Your task to perform on an android device: change the clock display to analog Image 0: 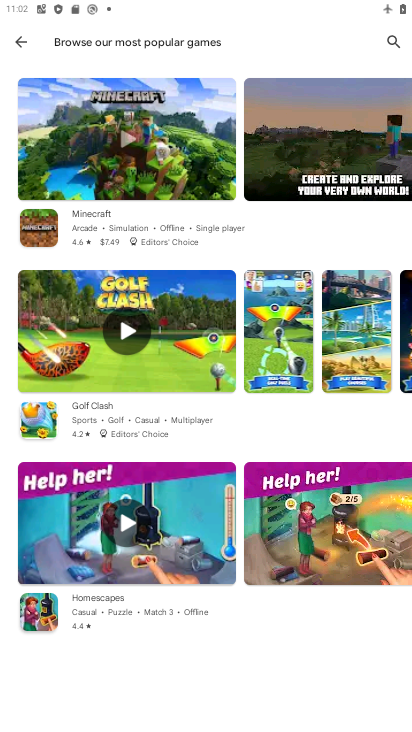
Step 0: press home button
Your task to perform on an android device: change the clock display to analog Image 1: 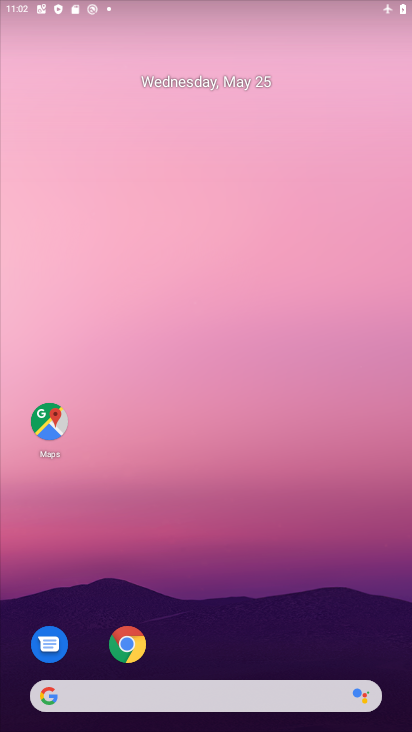
Step 1: drag from (227, 593) to (231, 104)
Your task to perform on an android device: change the clock display to analog Image 2: 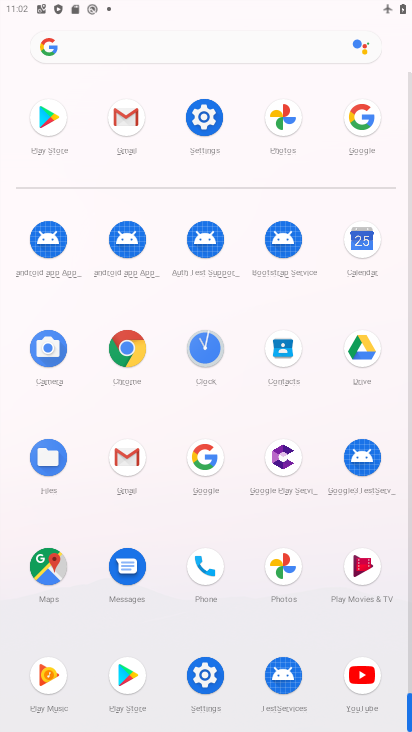
Step 2: click (201, 352)
Your task to perform on an android device: change the clock display to analog Image 3: 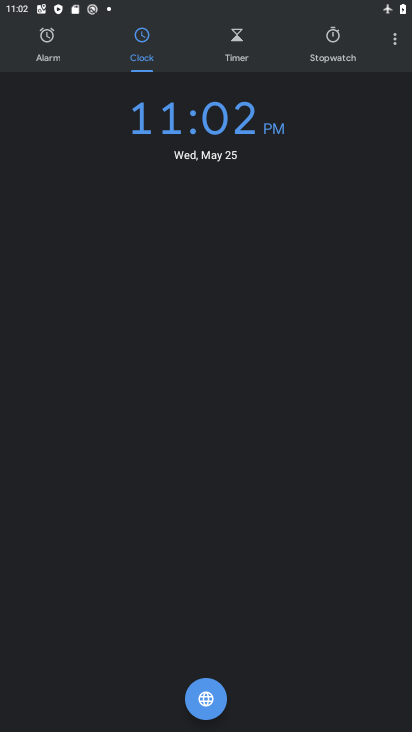
Step 3: click (389, 39)
Your task to perform on an android device: change the clock display to analog Image 4: 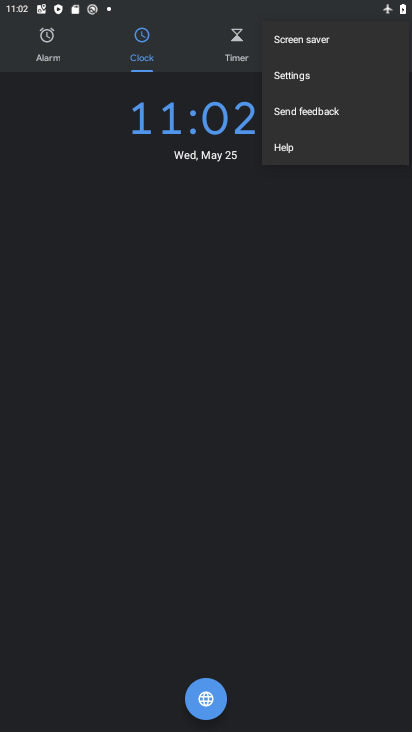
Step 4: click (298, 84)
Your task to perform on an android device: change the clock display to analog Image 5: 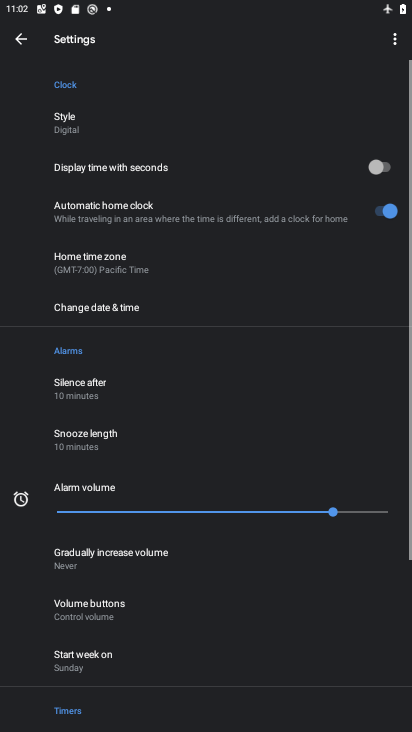
Step 5: click (112, 119)
Your task to perform on an android device: change the clock display to analog Image 6: 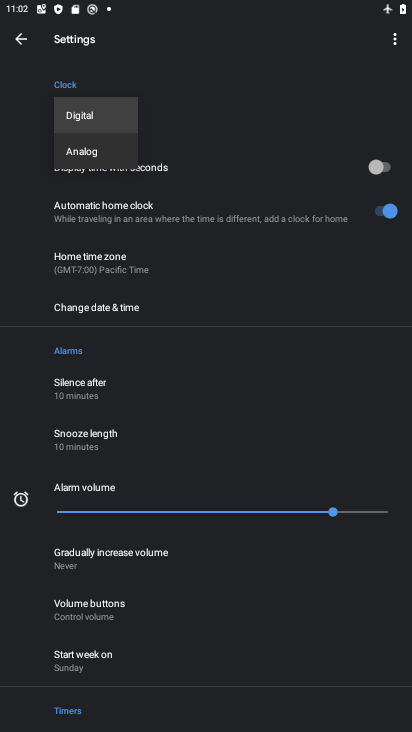
Step 6: click (98, 151)
Your task to perform on an android device: change the clock display to analog Image 7: 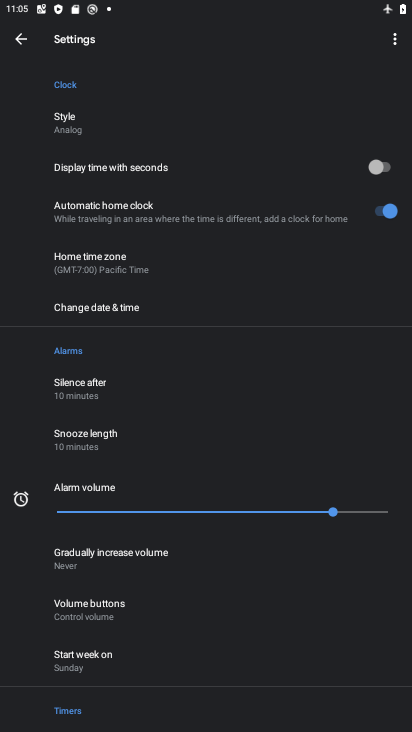
Step 7: task complete